Your task to perform on an android device: turn on the 12-hour format for clock Image 0: 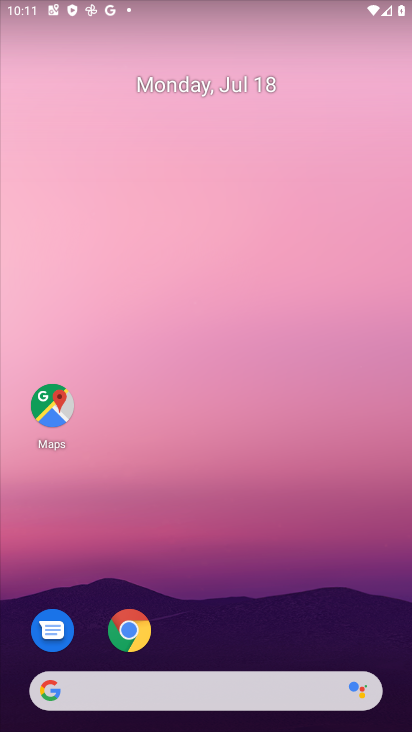
Step 0: drag from (231, 474) to (123, 4)
Your task to perform on an android device: turn on the 12-hour format for clock Image 1: 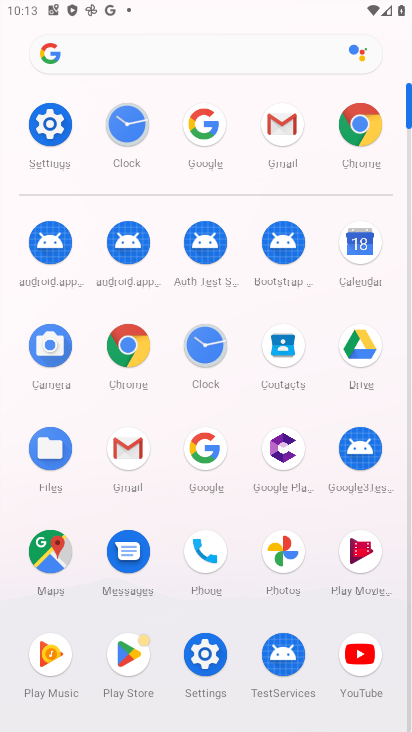
Step 1: click (206, 335)
Your task to perform on an android device: turn on the 12-hour format for clock Image 2: 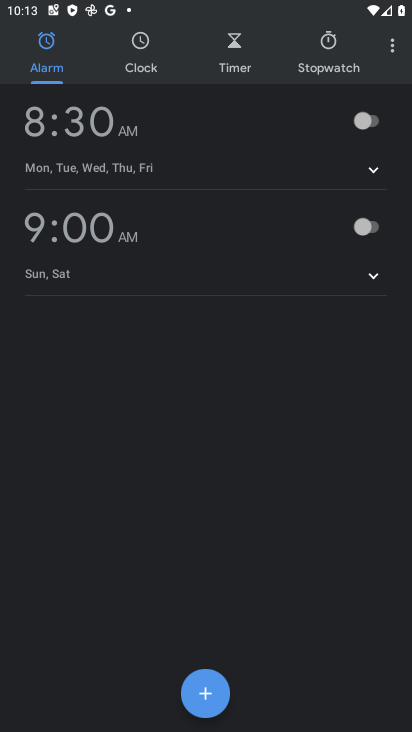
Step 2: click (388, 45)
Your task to perform on an android device: turn on the 12-hour format for clock Image 3: 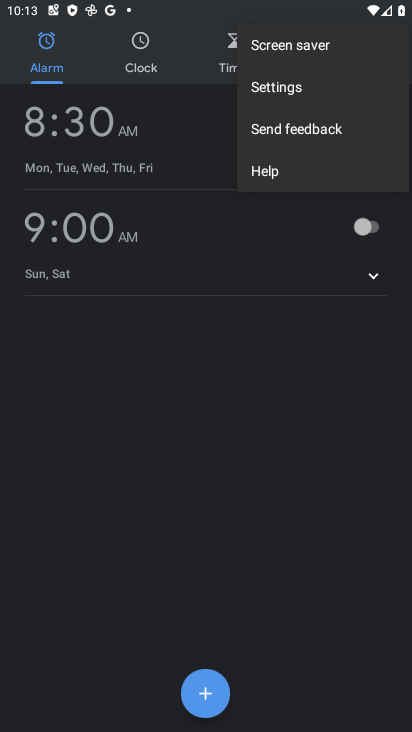
Step 3: click (290, 88)
Your task to perform on an android device: turn on the 12-hour format for clock Image 4: 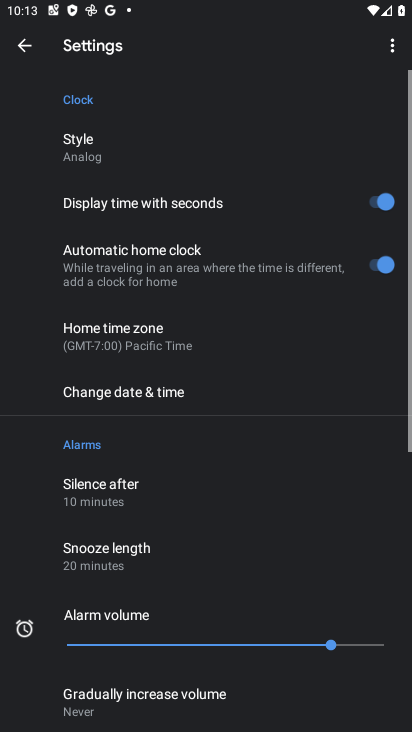
Step 4: click (148, 377)
Your task to perform on an android device: turn on the 12-hour format for clock Image 5: 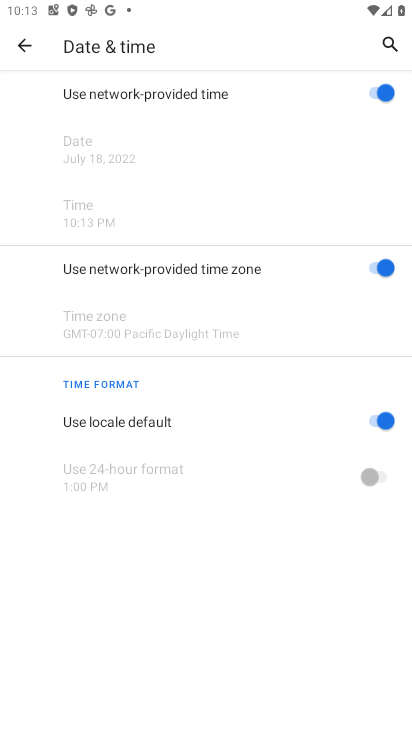
Step 5: task complete